Your task to perform on an android device: remove spam from my inbox in the gmail app Image 0: 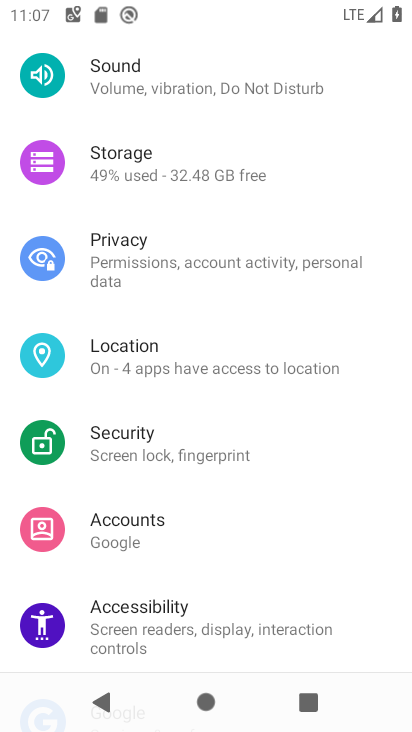
Step 0: press home button
Your task to perform on an android device: remove spam from my inbox in the gmail app Image 1: 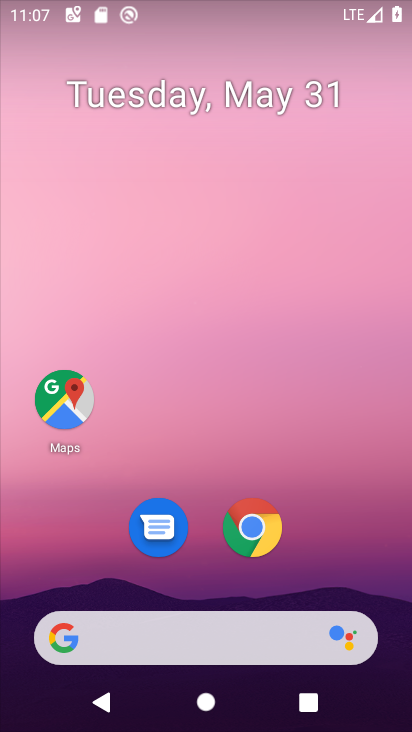
Step 1: drag from (347, 538) to (350, 10)
Your task to perform on an android device: remove spam from my inbox in the gmail app Image 2: 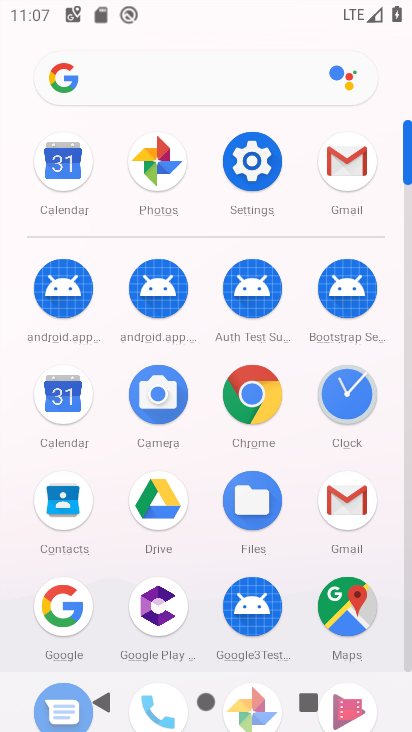
Step 2: click (347, 163)
Your task to perform on an android device: remove spam from my inbox in the gmail app Image 3: 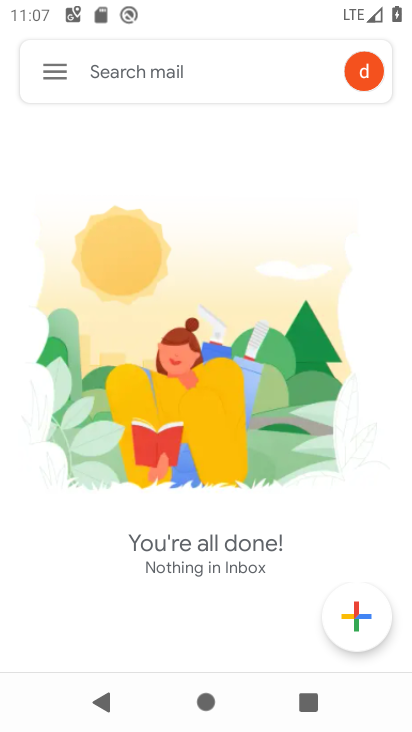
Step 3: click (56, 72)
Your task to perform on an android device: remove spam from my inbox in the gmail app Image 4: 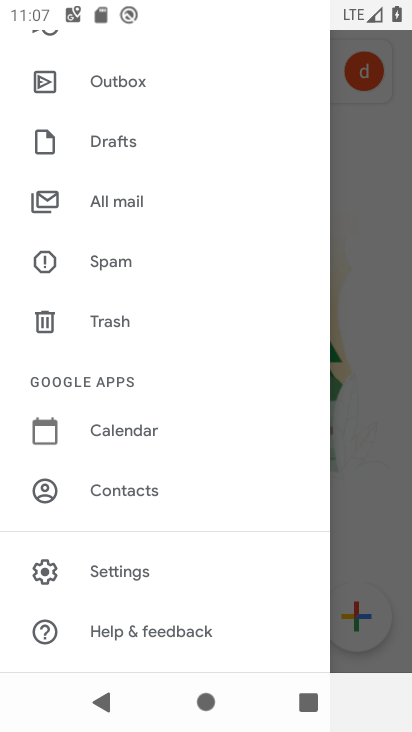
Step 4: click (102, 268)
Your task to perform on an android device: remove spam from my inbox in the gmail app Image 5: 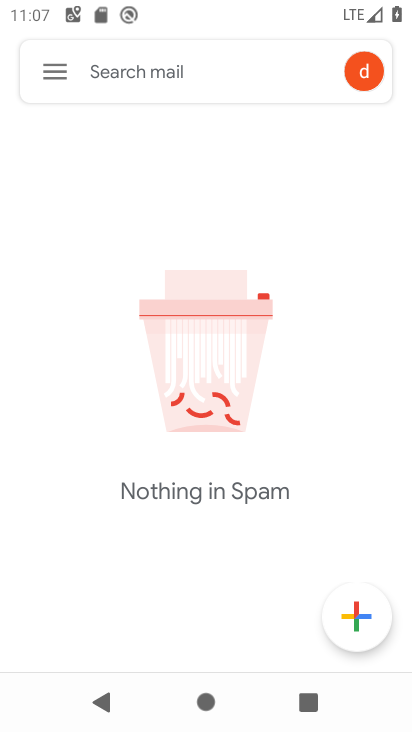
Step 5: task complete